Your task to perform on an android device: turn off translation in the chrome app Image 0: 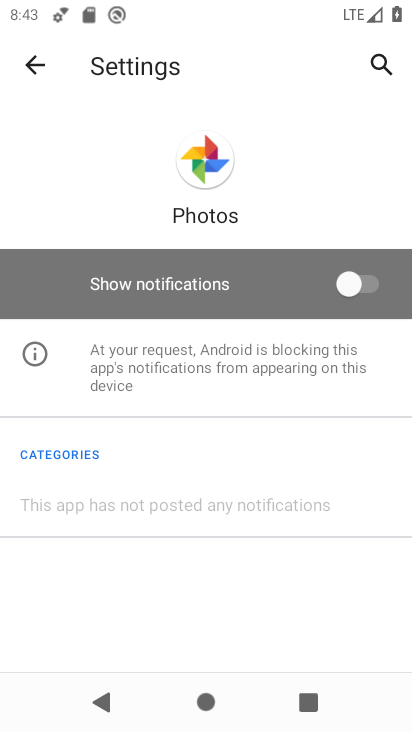
Step 0: press home button
Your task to perform on an android device: turn off translation in the chrome app Image 1: 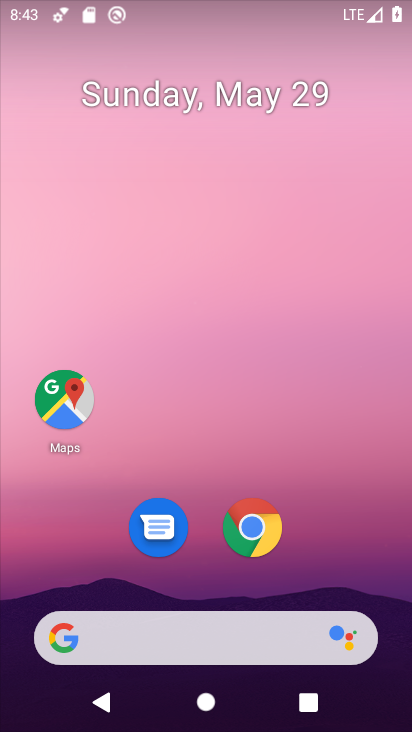
Step 1: click (250, 520)
Your task to perform on an android device: turn off translation in the chrome app Image 2: 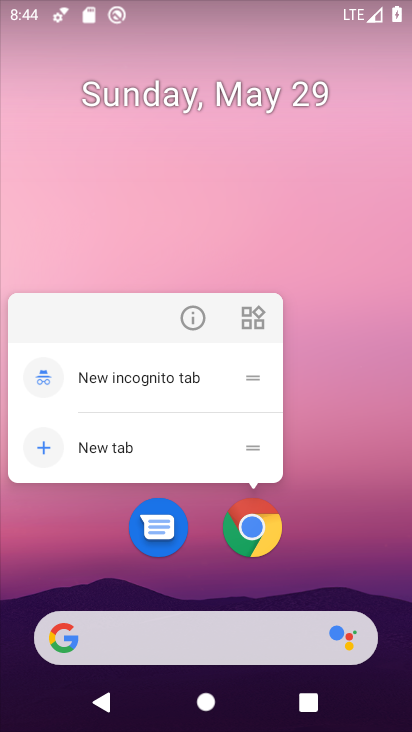
Step 2: click (245, 518)
Your task to perform on an android device: turn off translation in the chrome app Image 3: 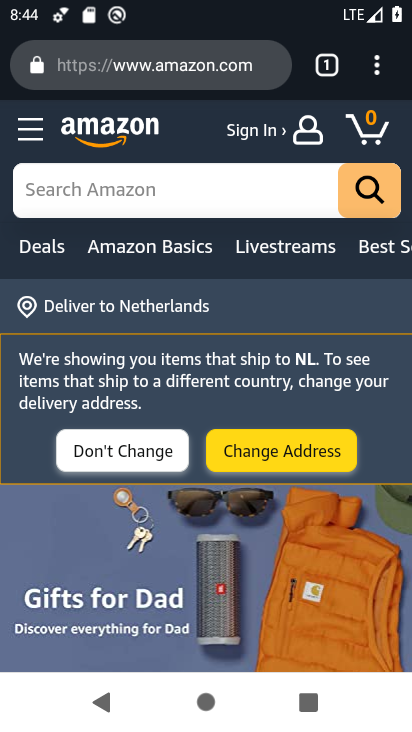
Step 3: click (379, 58)
Your task to perform on an android device: turn off translation in the chrome app Image 4: 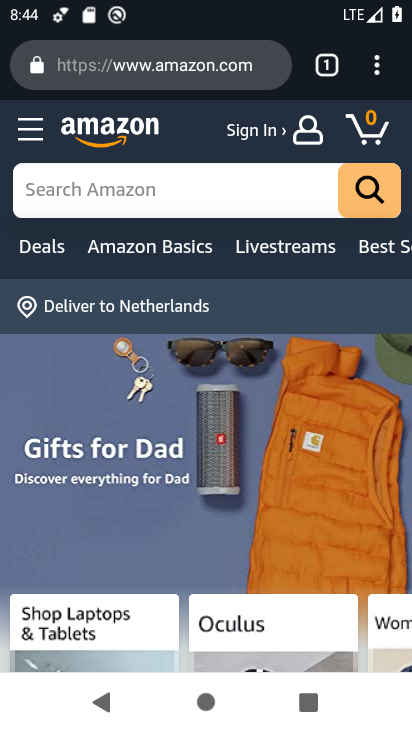
Step 4: click (379, 61)
Your task to perform on an android device: turn off translation in the chrome app Image 5: 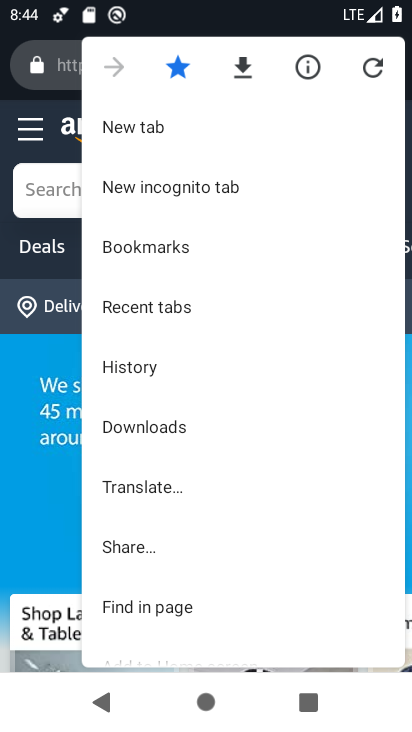
Step 5: drag from (236, 590) to (215, 90)
Your task to perform on an android device: turn off translation in the chrome app Image 6: 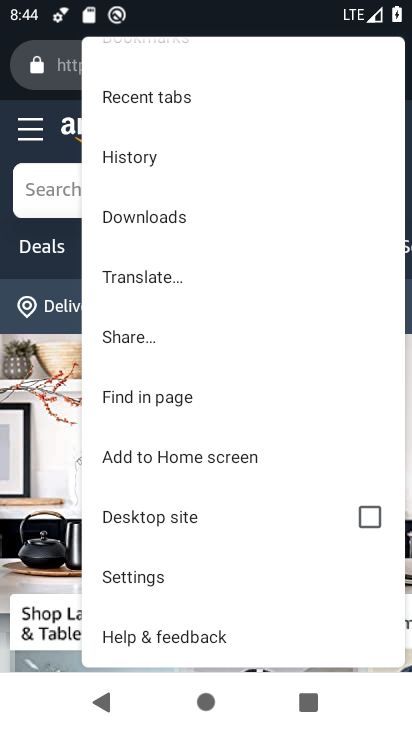
Step 6: click (169, 572)
Your task to perform on an android device: turn off translation in the chrome app Image 7: 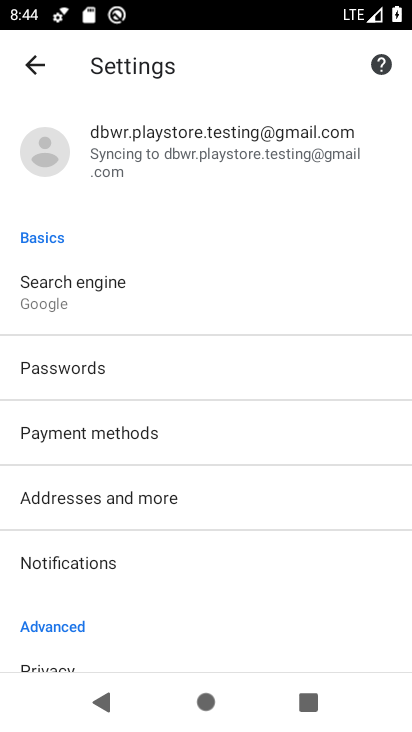
Step 7: drag from (181, 638) to (170, 154)
Your task to perform on an android device: turn off translation in the chrome app Image 8: 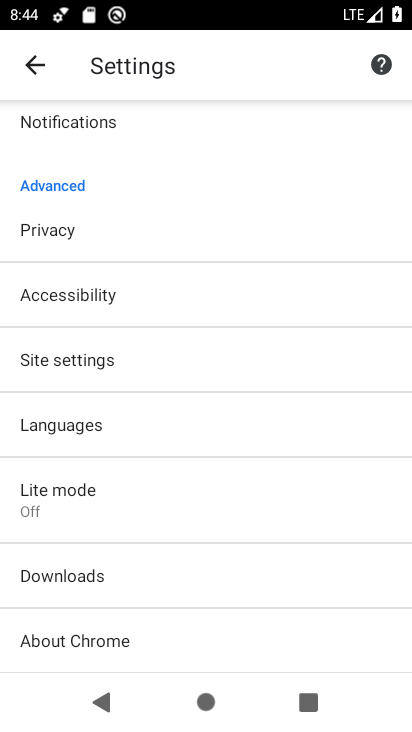
Step 8: click (125, 419)
Your task to perform on an android device: turn off translation in the chrome app Image 9: 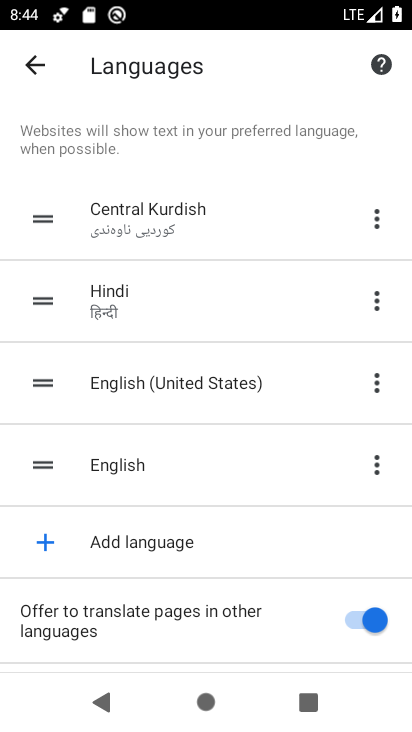
Step 9: click (353, 610)
Your task to perform on an android device: turn off translation in the chrome app Image 10: 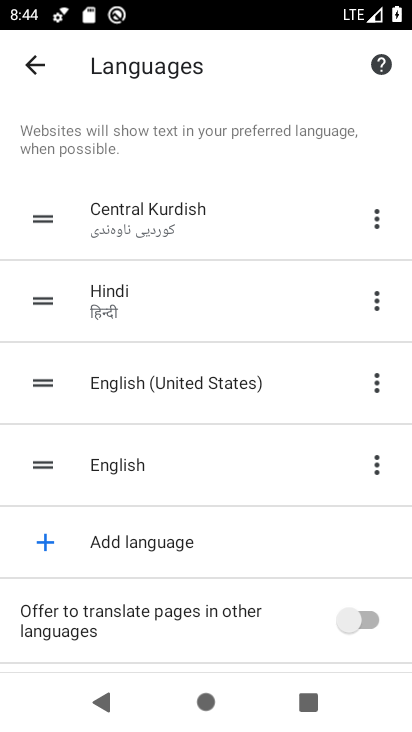
Step 10: task complete